Your task to perform on an android device: Go to sound settings Image 0: 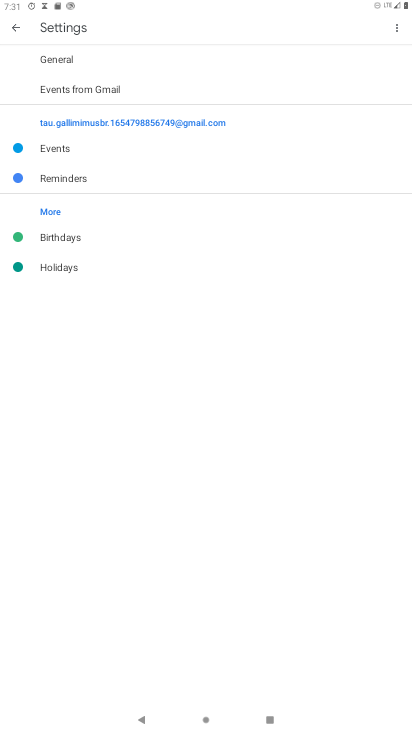
Step 0: press home button
Your task to perform on an android device: Go to sound settings Image 1: 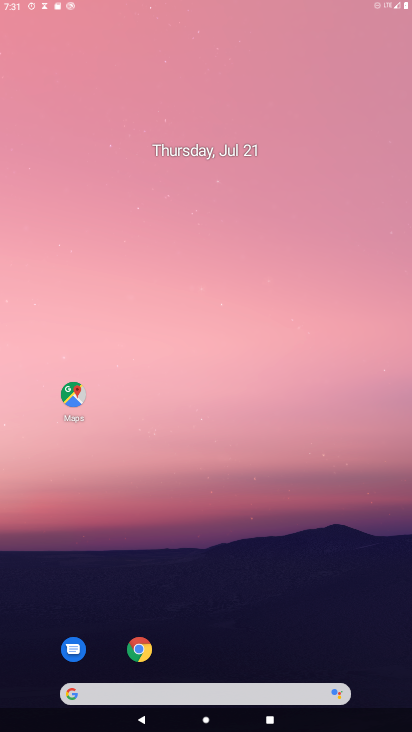
Step 1: drag from (350, 650) to (213, 51)
Your task to perform on an android device: Go to sound settings Image 2: 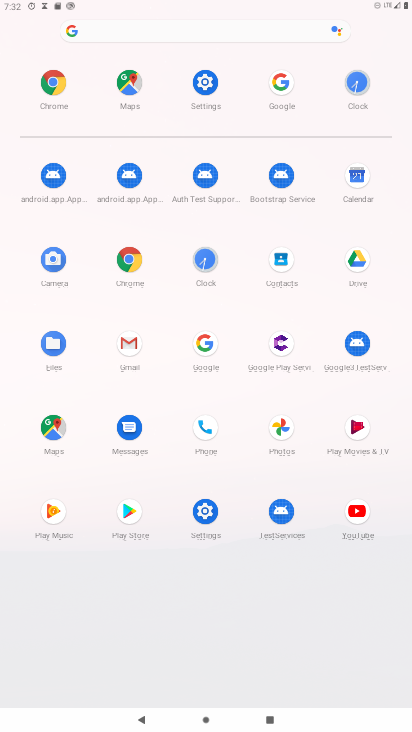
Step 2: click (202, 522)
Your task to perform on an android device: Go to sound settings Image 3: 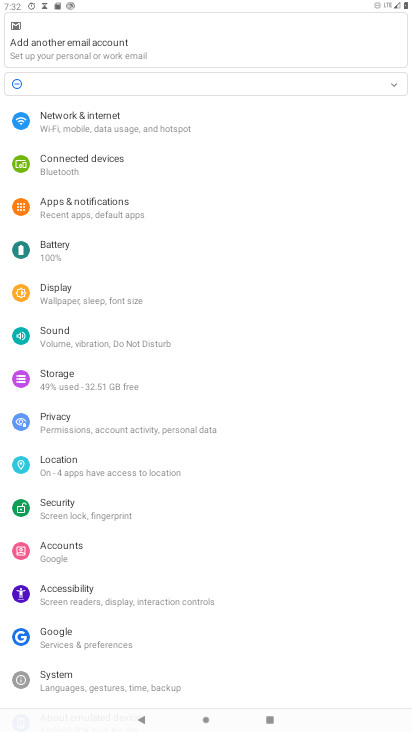
Step 3: click (61, 343)
Your task to perform on an android device: Go to sound settings Image 4: 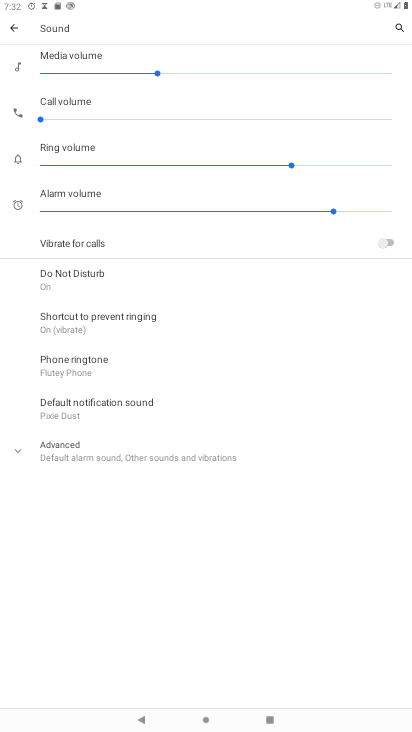
Step 4: task complete